Your task to perform on an android device: Search for the best coffee tables on Crate & Barrel Image 0: 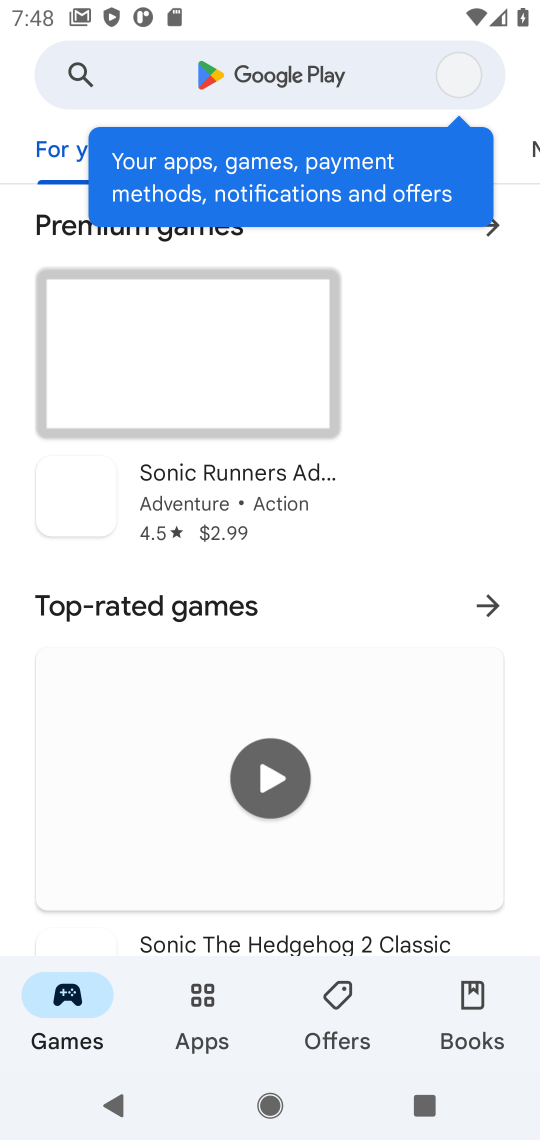
Step 0: press home button
Your task to perform on an android device: Search for the best coffee tables on Crate & Barrel Image 1: 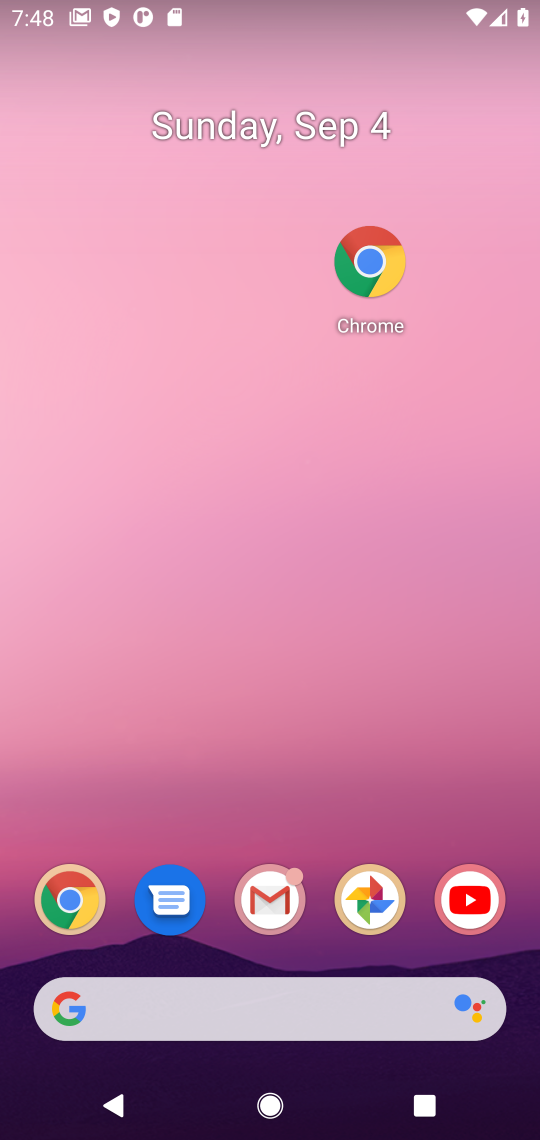
Step 1: click (401, 219)
Your task to perform on an android device: Search for the best coffee tables on Crate & Barrel Image 2: 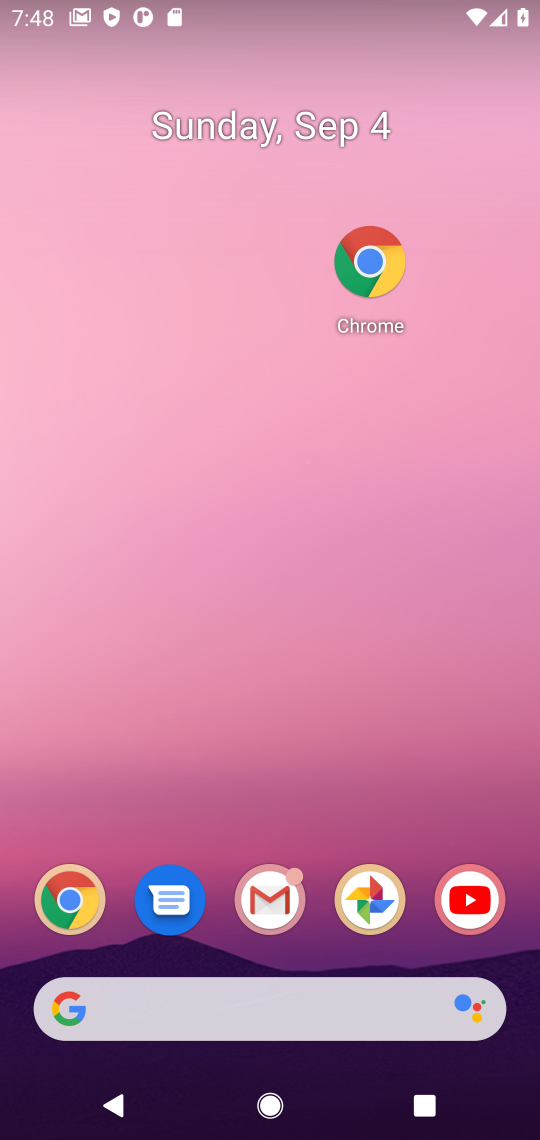
Step 2: click (364, 294)
Your task to perform on an android device: Search for the best coffee tables on Crate & Barrel Image 3: 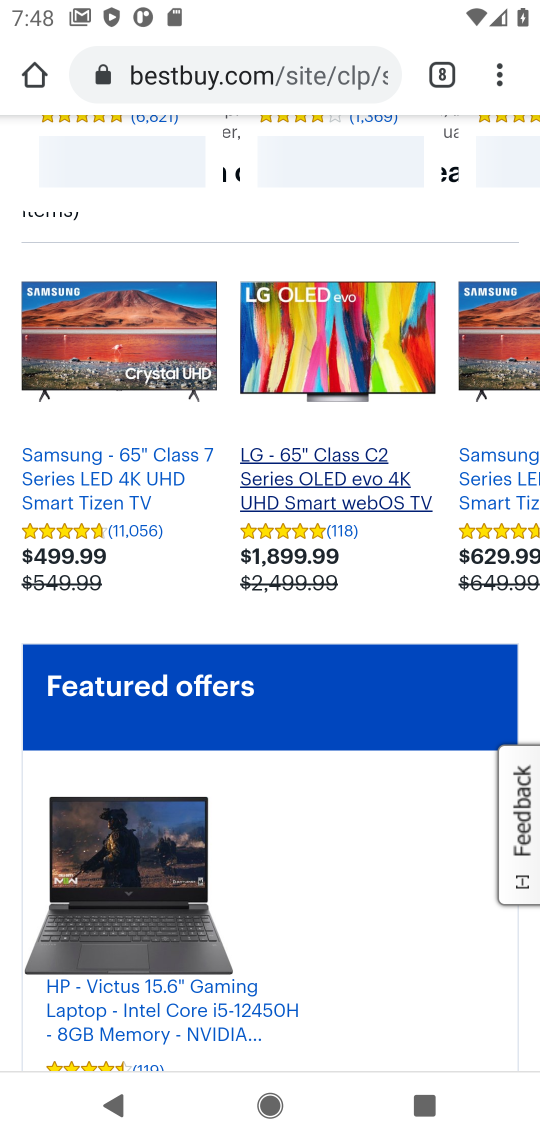
Step 3: click (452, 68)
Your task to perform on an android device: Search for the best coffee tables on Crate & Barrel Image 4: 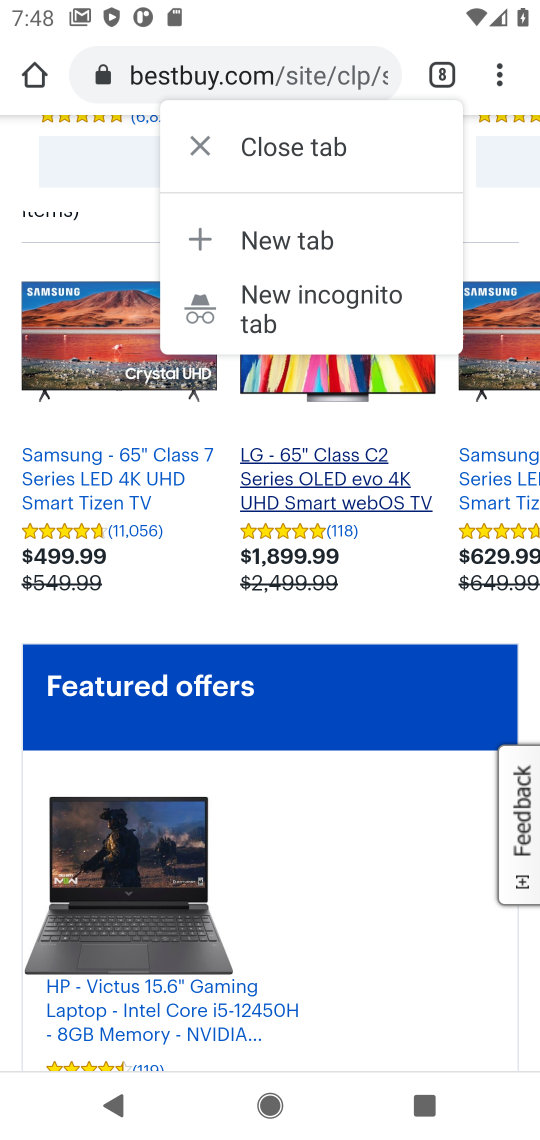
Step 4: click (296, 244)
Your task to perform on an android device: Search for the best coffee tables on Crate & Barrel Image 5: 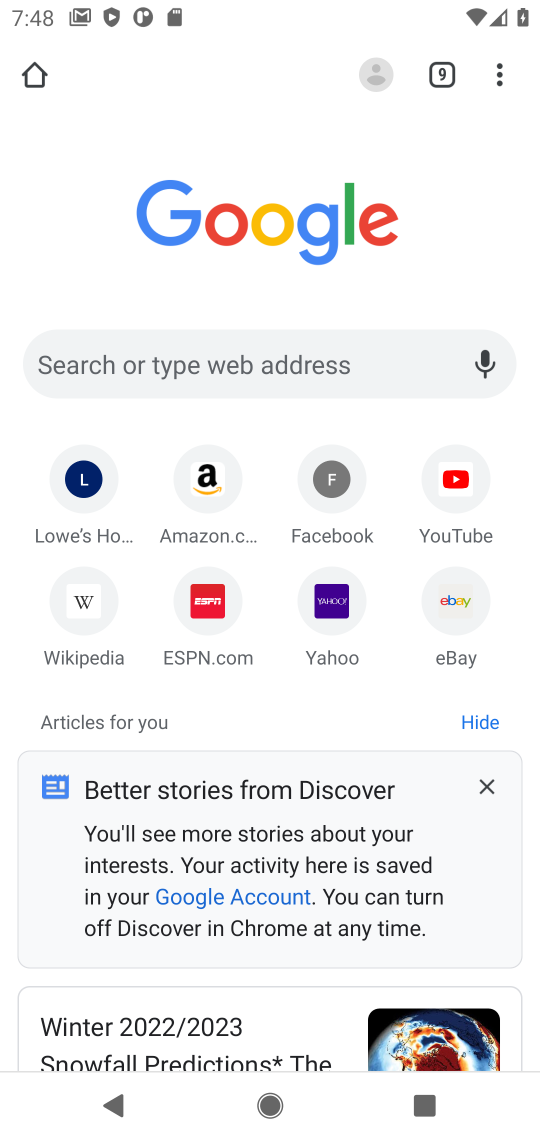
Step 5: click (213, 360)
Your task to perform on an android device: Search for the best coffee tables on Crate & Barrel Image 6: 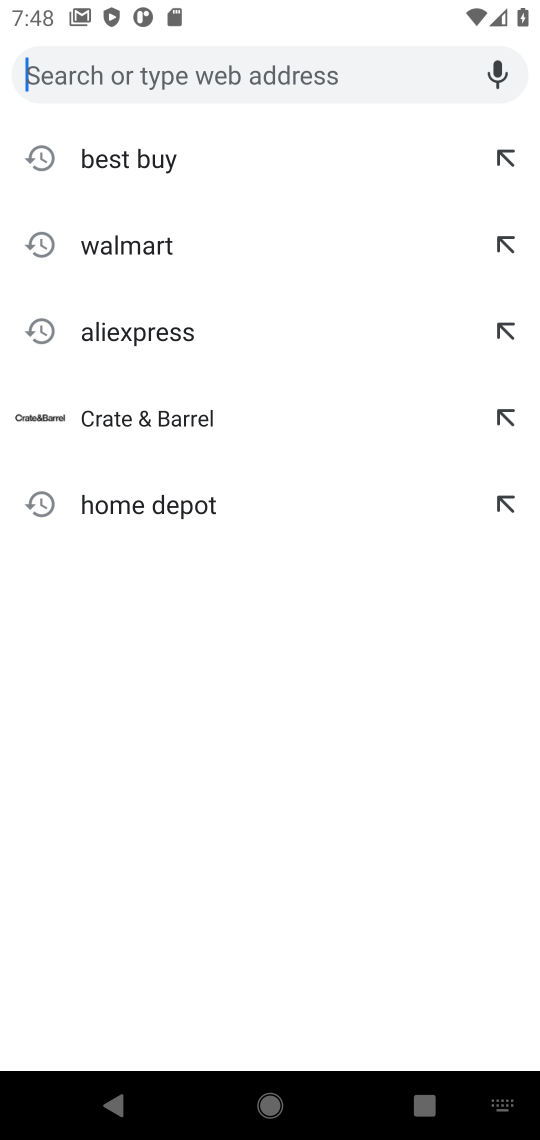
Step 6: click (319, 422)
Your task to perform on an android device: Search for the best coffee tables on Crate & Barrel Image 7: 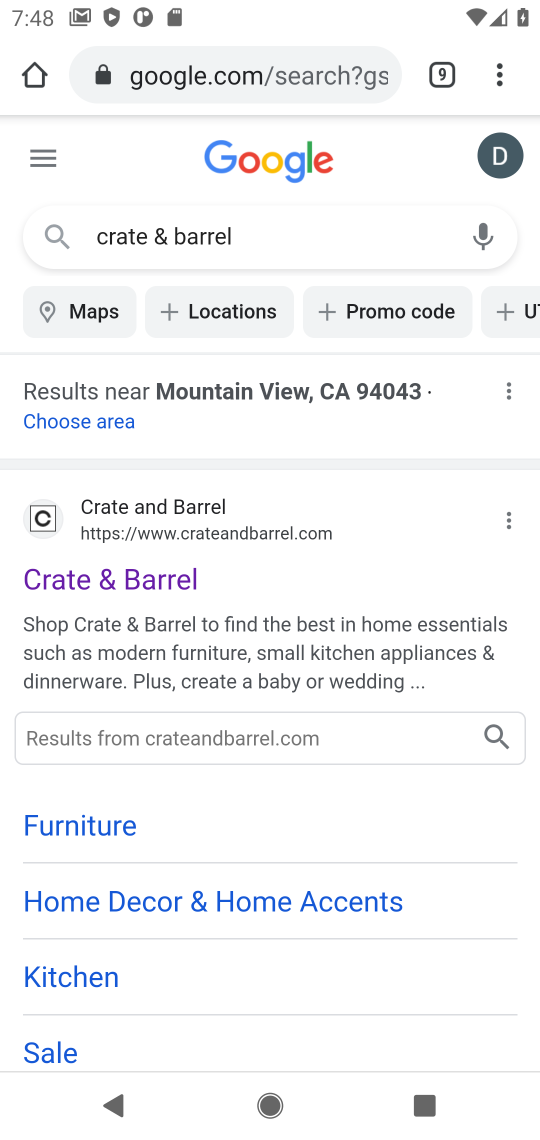
Step 7: click (160, 589)
Your task to perform on an android device: Search for the best coffee tables on Crate & Barrel Image 8: 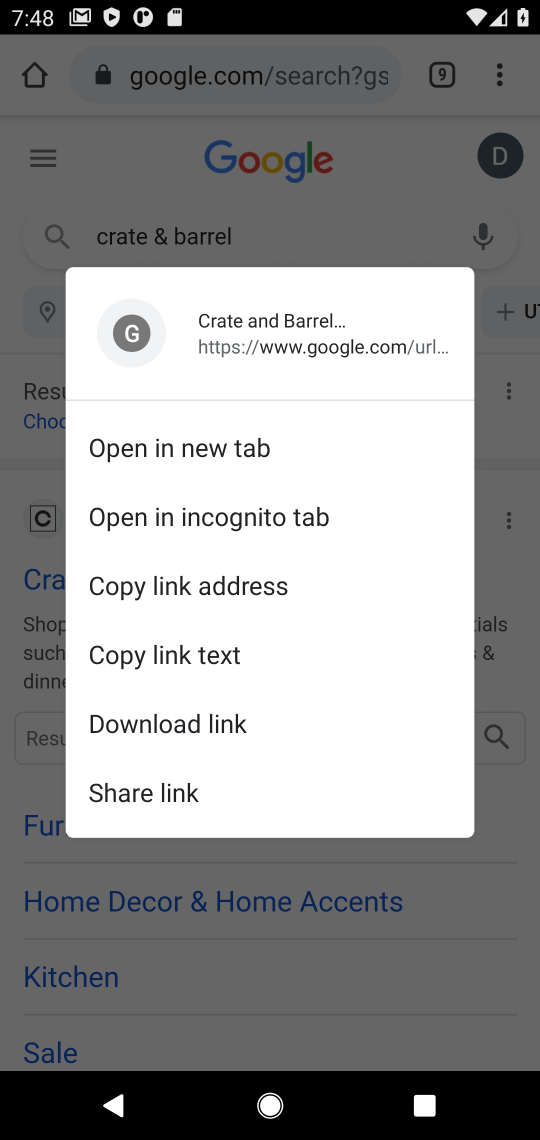
Step 8: click (516, 564)
Your task to perform on an android device: Search for the best coffee tables on Crate & Barrel Image 9: 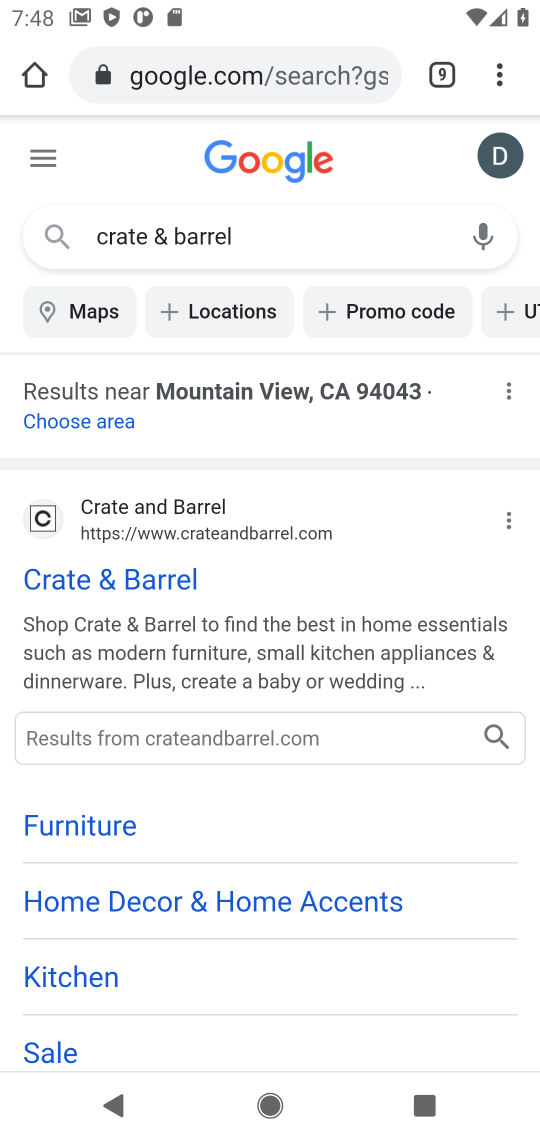
Step 9: click (171, 590)
Your task to perform on an android device: Search for the best coffee tables on Crate & Barrel Image 10: 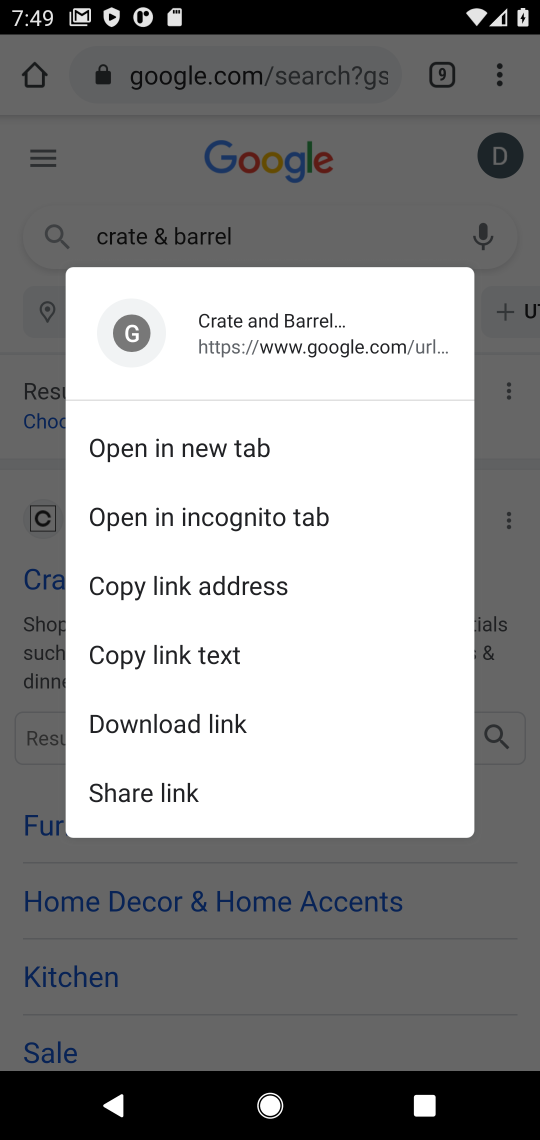
Step 10: click (500, 498)
Your task to perform on an android device: Search for the best coffee tables on Crate & Barrel Image 11: 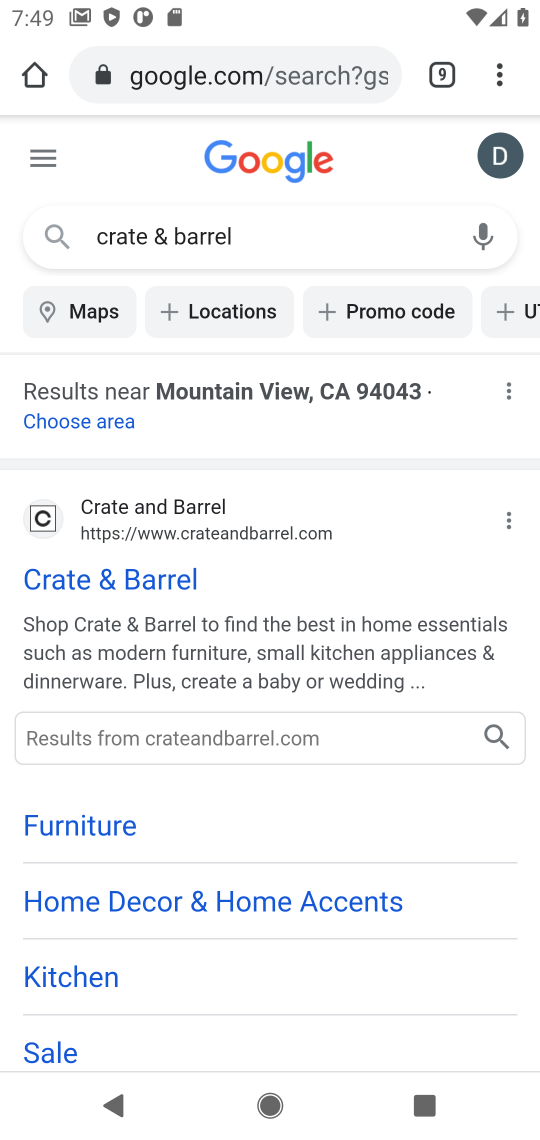
Step 11: click (38, 568)
Your task to perform on an android device: Search for the best coffee tables on Crate & Barrel Image 12: 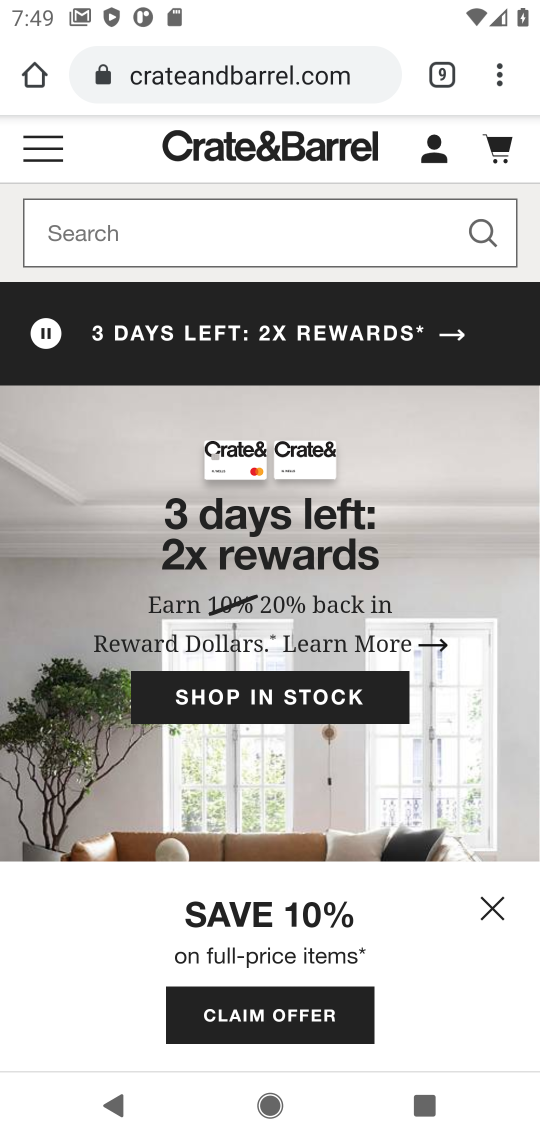
Step 12: click (99, 239)
Your task to perform on an android device: Search for the best coffee tables on Crate & Barrel Image 13: 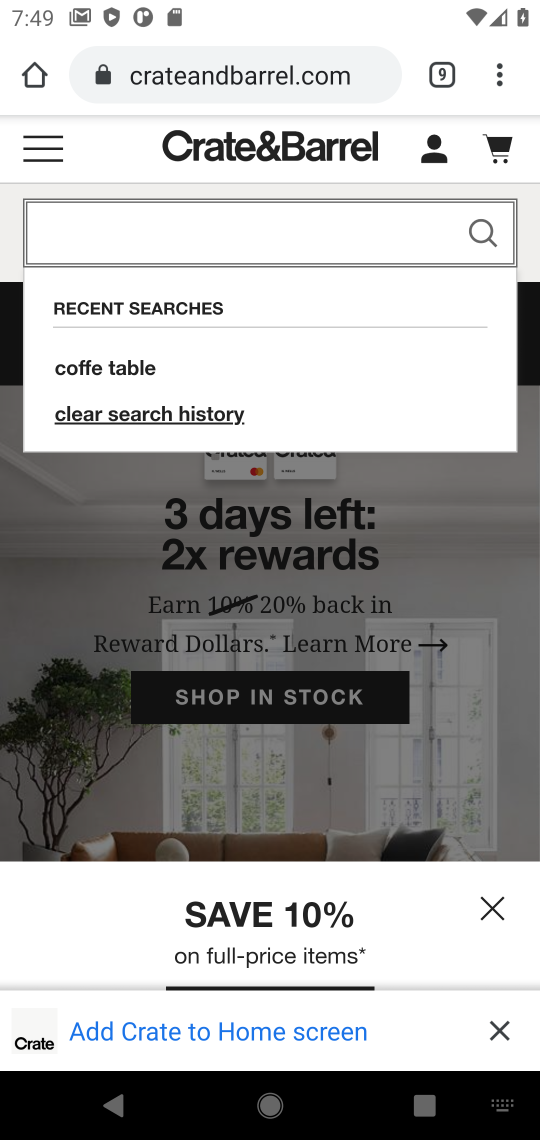
Step 13: click (80, 368)
Your task to perform on an android device: Search for the best coffee tables on Crate & Barrel Image 14: 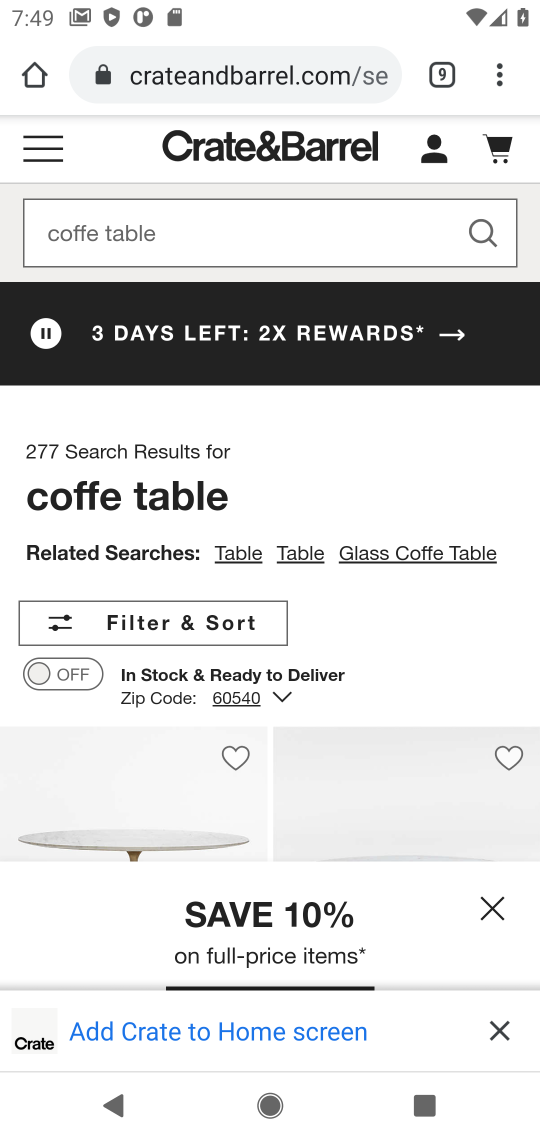
Step 14: click (496, 1029)
Your task to perform on an android device: Search for the best coffee tables on Crate & Barrel Image 15: 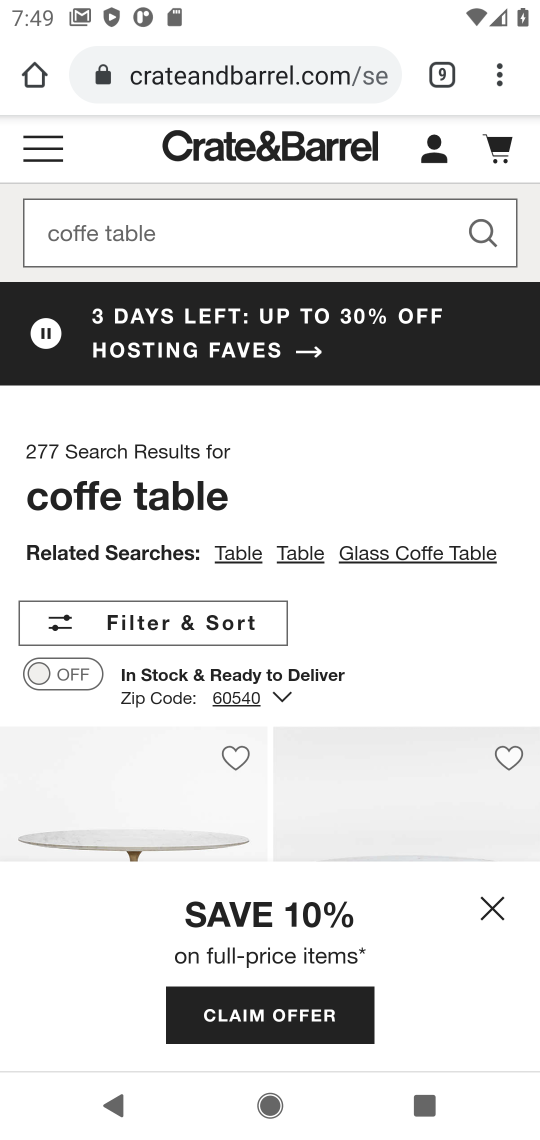
Step 15: click (492, 908)
Your task to perform on an android device: Search for the best coffee tables on Crate & Barrel Image 16: 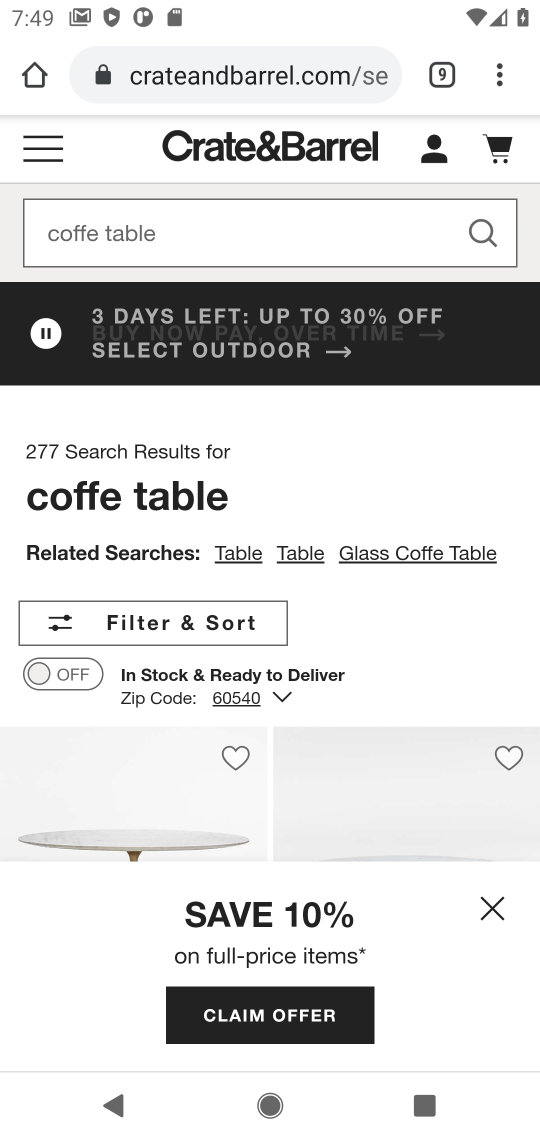
Step 16: task complete